Your task to perform on an android device: toggle javascript in the chrome app Image 0: 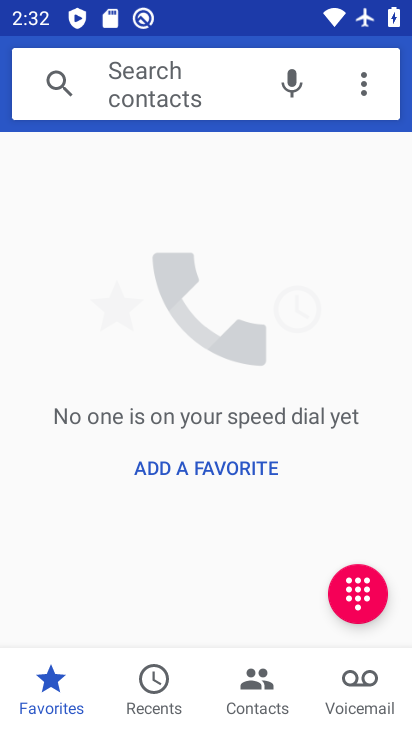
Step 0: press home button
Your task to perform on an android device: toggle javascript in the chrome app Image 1: 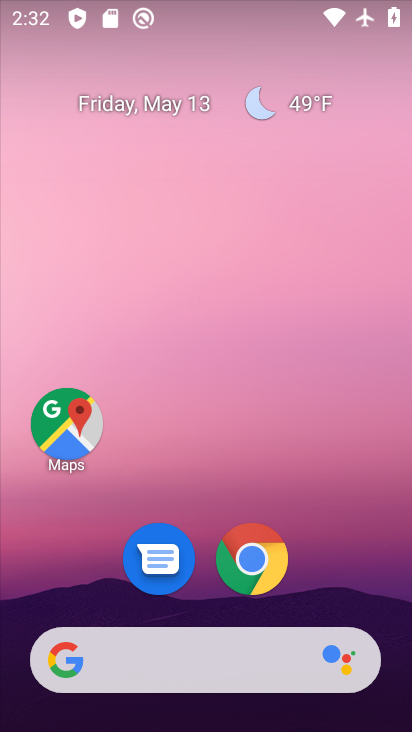
Step 1: click (252, 549)
Your task to perform on an android device: toggle javascript in the chrome app Image 2: 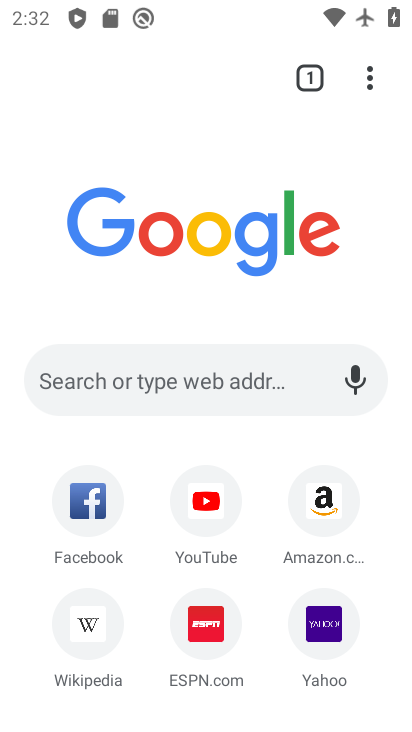
Step 2: click (368, 85)
Your task to perform on an android device: toggle javascript in the chrome app Image 3: 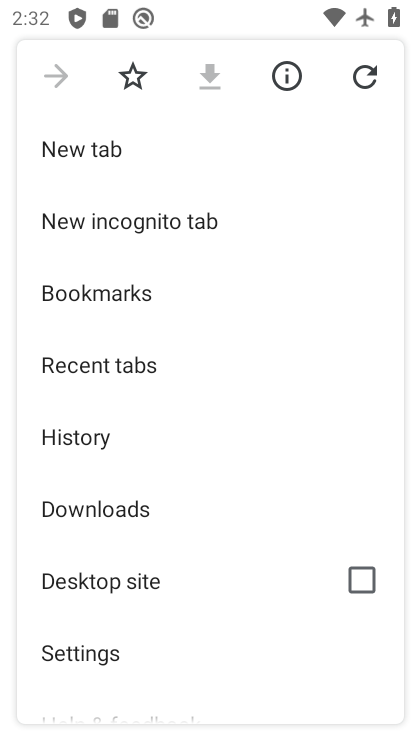
Step 3: drag from (191, 622) to (233, 203)
Your task to perform on an android device: toggle javascript in the chrome app Image 4: 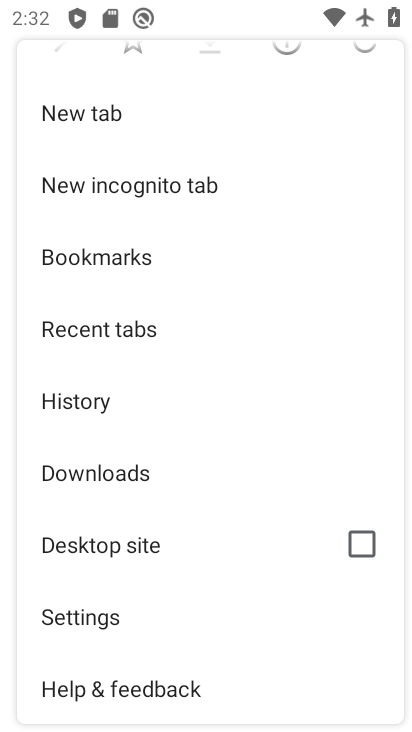
Step 4: click (90, 617)
Your task to perform on an android device: toggle javascript in the chrome app Image 5: 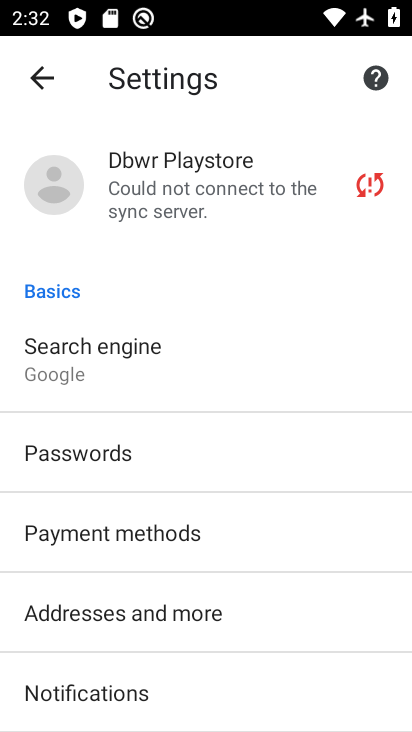
Step 5: drag from (259, 656) to (217, 308)
Your task to perform on an android device: toggle javascript in the chrome app Image 6: 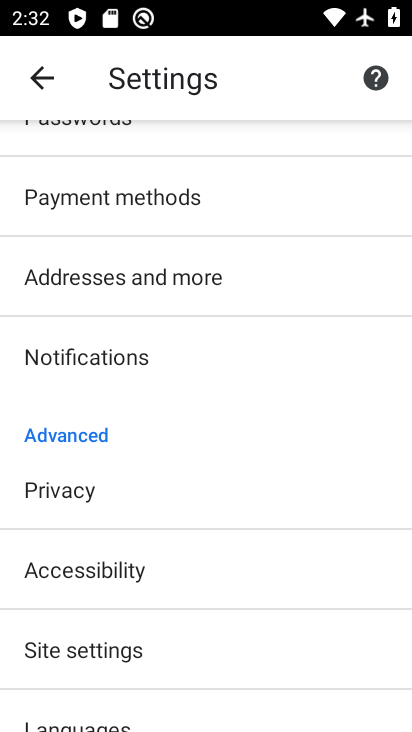
Step 6: drag from (196, 609) to (212, 372)
Your task to perform on an android device: toggle javascript in the chrome app Image 7: 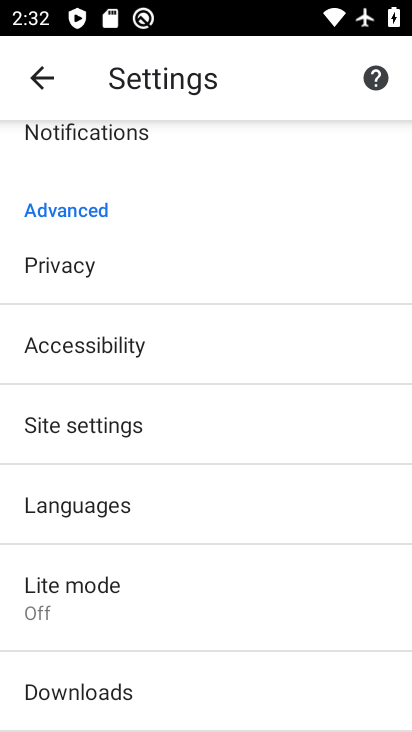
Step 7: click (59, 412)
Your task to perform on an android device: toggle javascript in the chrome app Image 8: 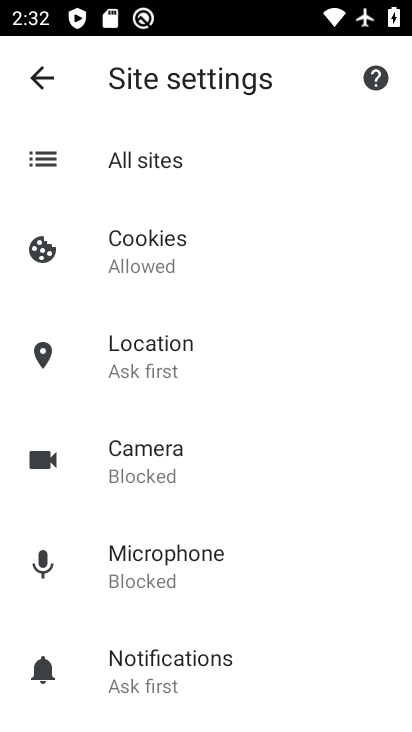
Step 8: drag from (257, 628) to (257, 279)
Your task to perform on an android device: toggle javascript in the chrome app Image 9: 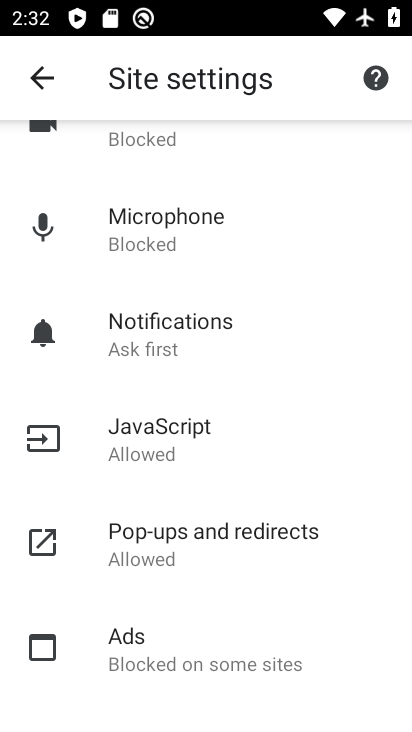
Step 9: click (138, 440)
Your task to perform on an android device: toggle javascript in the chrome app Image 10: 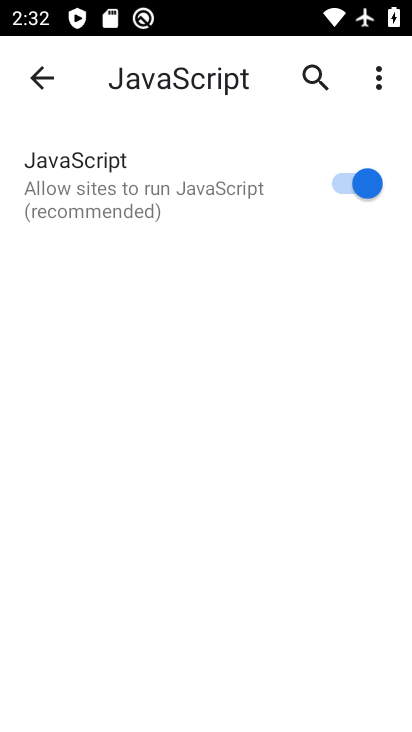
Step 10: click (339, 183)
Your task to perform on an android device: toggle javascript in the chrome app Image 11: 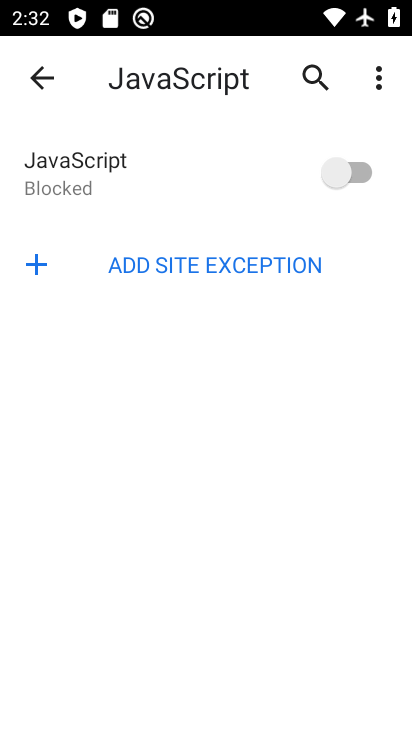
Step 11: task complete